Your task to perform on an android device: turn on priority inbox in the gmail app Image 0: 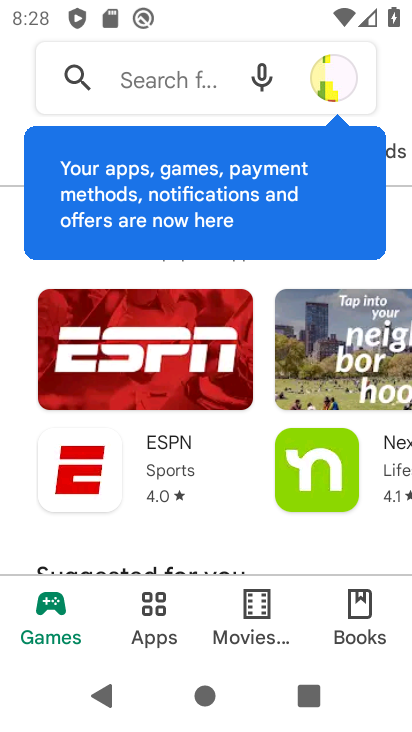
Step 0: press home button
Your task to perform on an android device: turn on priority inbox in the gmail app Image 1: 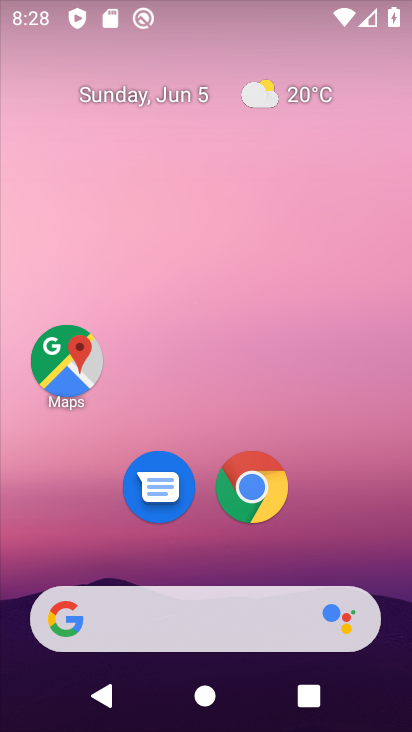
Step 1: drag from (211, 596) to (216, 209)
Your task to perform on an android device: turn on priority inbox in the gmail app Image 2: 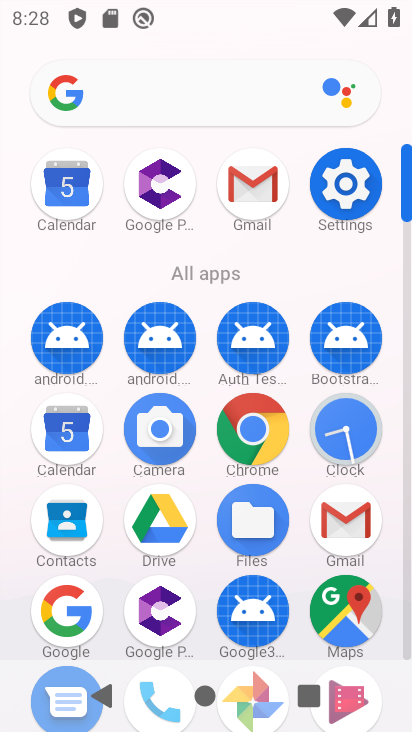
Step 2: click (357, 528)
Your task to perform on an android device: turn on priority inbox in the gmail app Image 3: 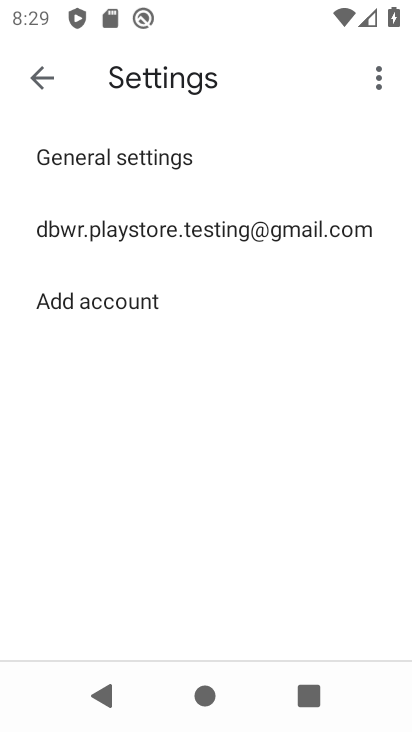
Step 3: click (146, 240)
Your task to perform on an android device: turn on priority inbox in the gmail app Image 4: 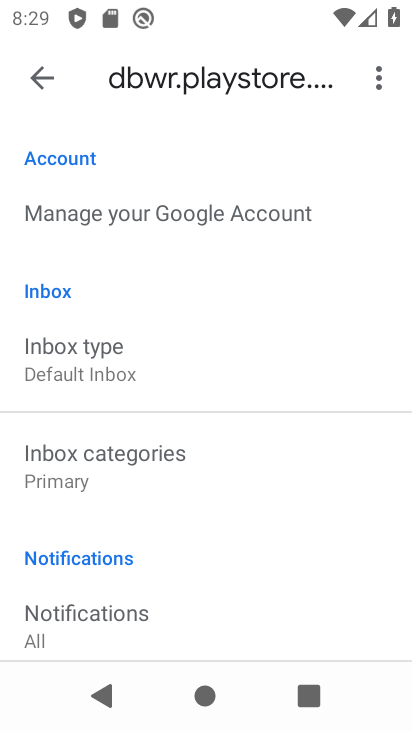
Step 4: click (149, 372)
Your task to perform on an android device: turn on priority inbox in the gmail app Image 5: 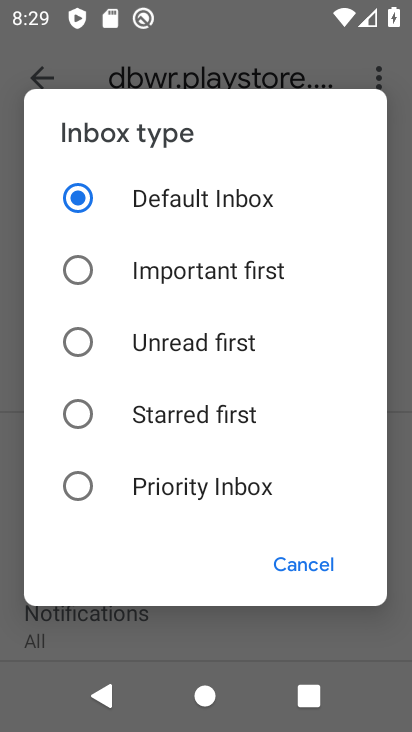
Step 5: click (175, 484)
Your task to perform on an android device: turn on priority inbox in the gmail app Image 6: 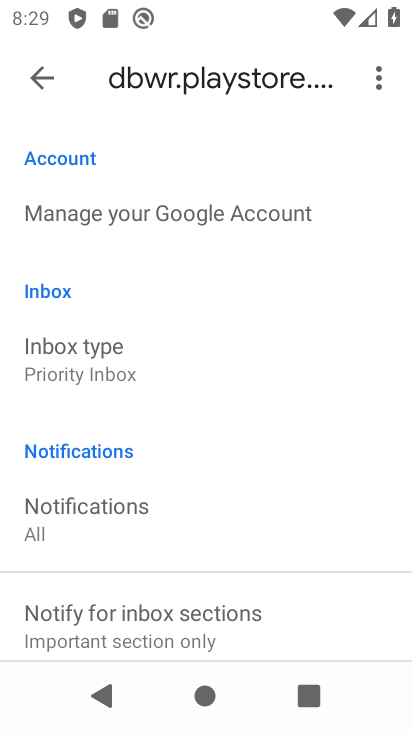
Step 6: task complete